Your task to perform on an android device: turn on javascript in the chrome app Image 0: 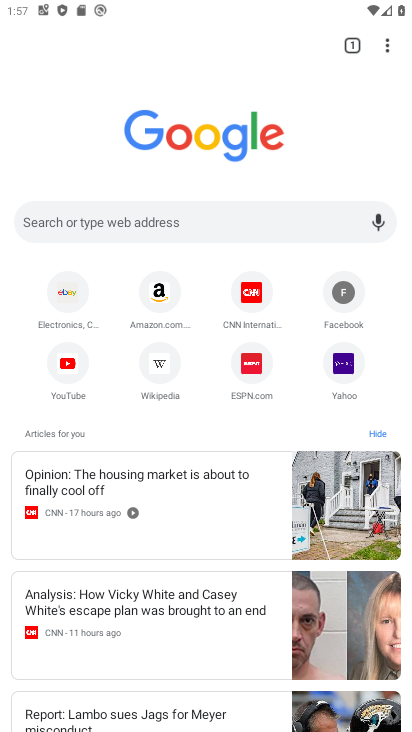
Step 0: press home button
Your task to perform on an android device: turn on javascript in the chrome app Image 1: 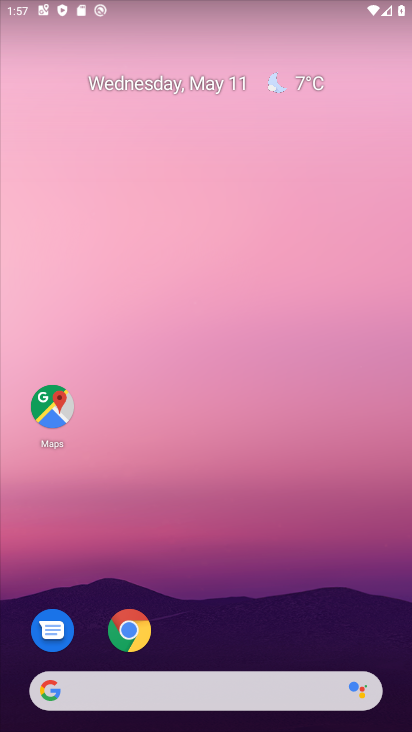
Step 1: drag from (380, 653) to (330, 60)
Your task to perform on an android device: turn on javascript in the chrome app Image 2: 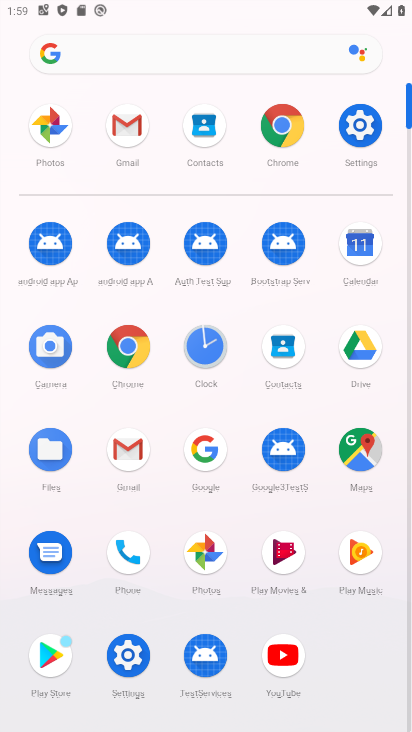
Step 2: click (138, 349)
Your task to perform on an android device: turn on javascript in the chrome app Image 3: 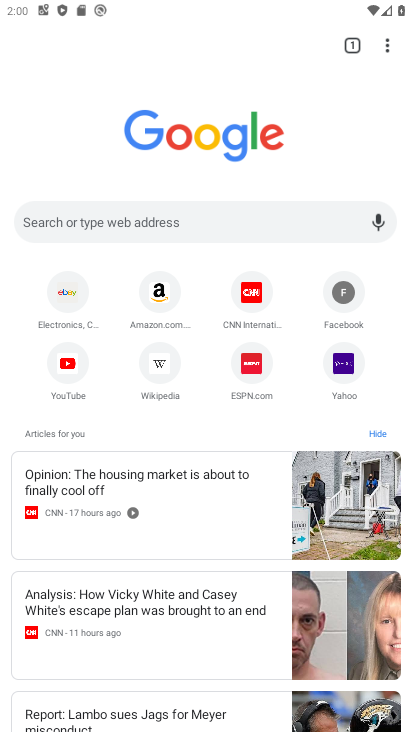
Step 3: click (385, 41)
Your task to perform on an android device: turn on javascript in the chrome app Image 4: 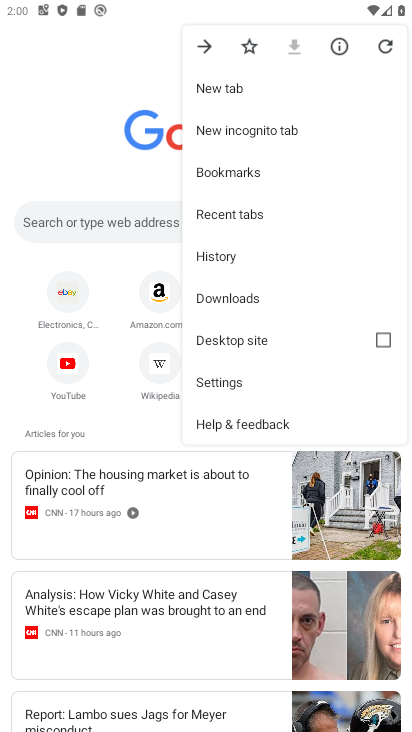
Step 4: click (265, 394)
Your task to perform on an android device: turn on javascript in the chrome app Image 5: 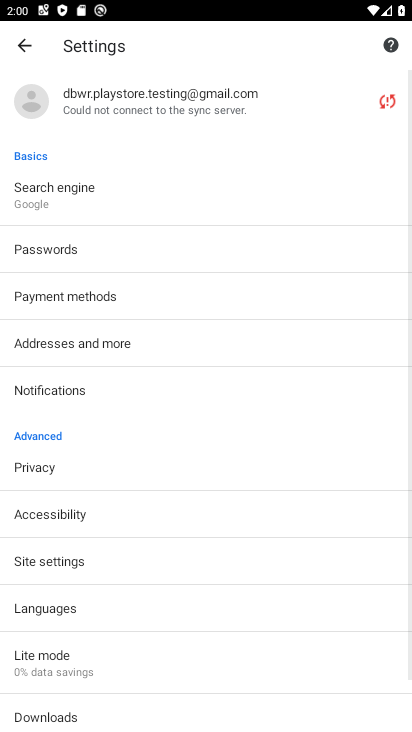
Step 5: click (104, 558)
Your task to perform on an android device: turn on javascript in the chrome app Image 6: 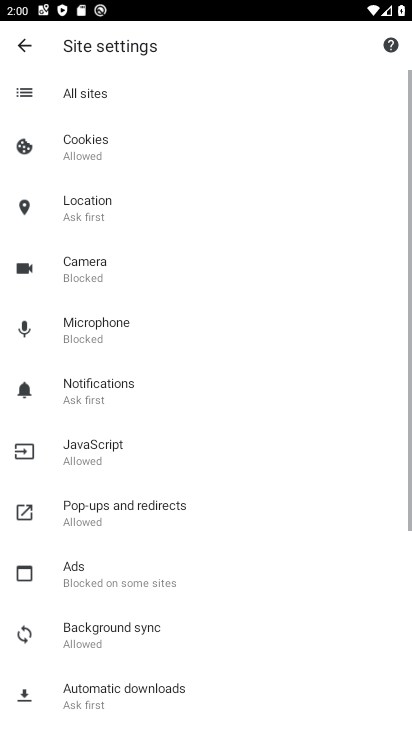
Step 6: click (152, 446)
Your task to perform on an android device: turn on javascript in the chrome app Image 7: 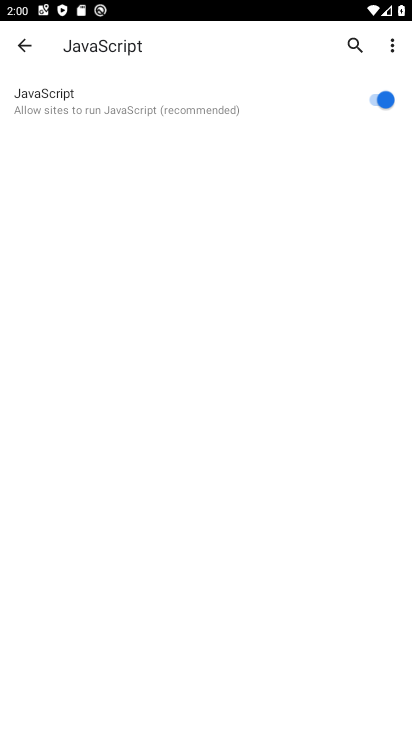
Step 7: task complete